Your task to perform on an android device: Search for acer predator on walmart, select the first entry, add it to the cart, then select checkout. Image 0: 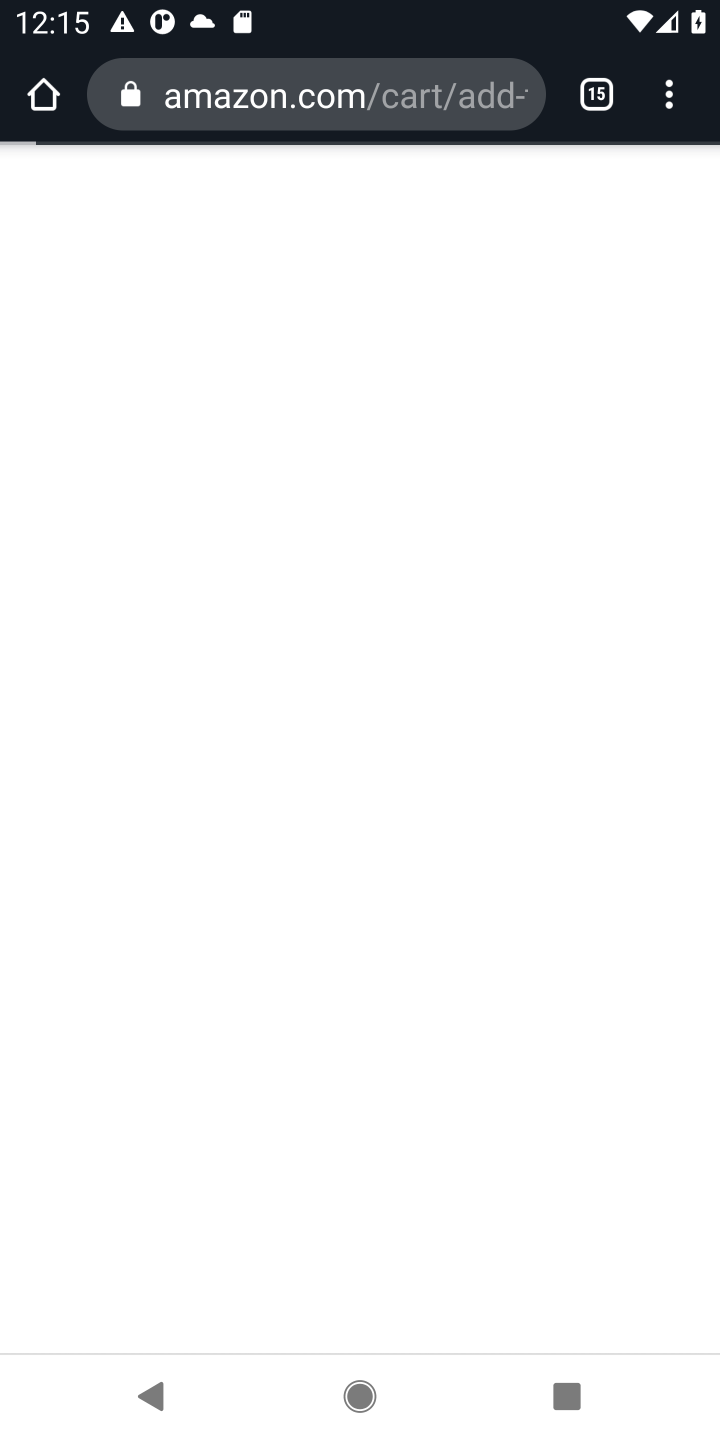
Step 0: press home button
Your task to perform on an android device: Search for acer predator on walmart, select the first entry, add it to the cart, then select checkout. Image 1: 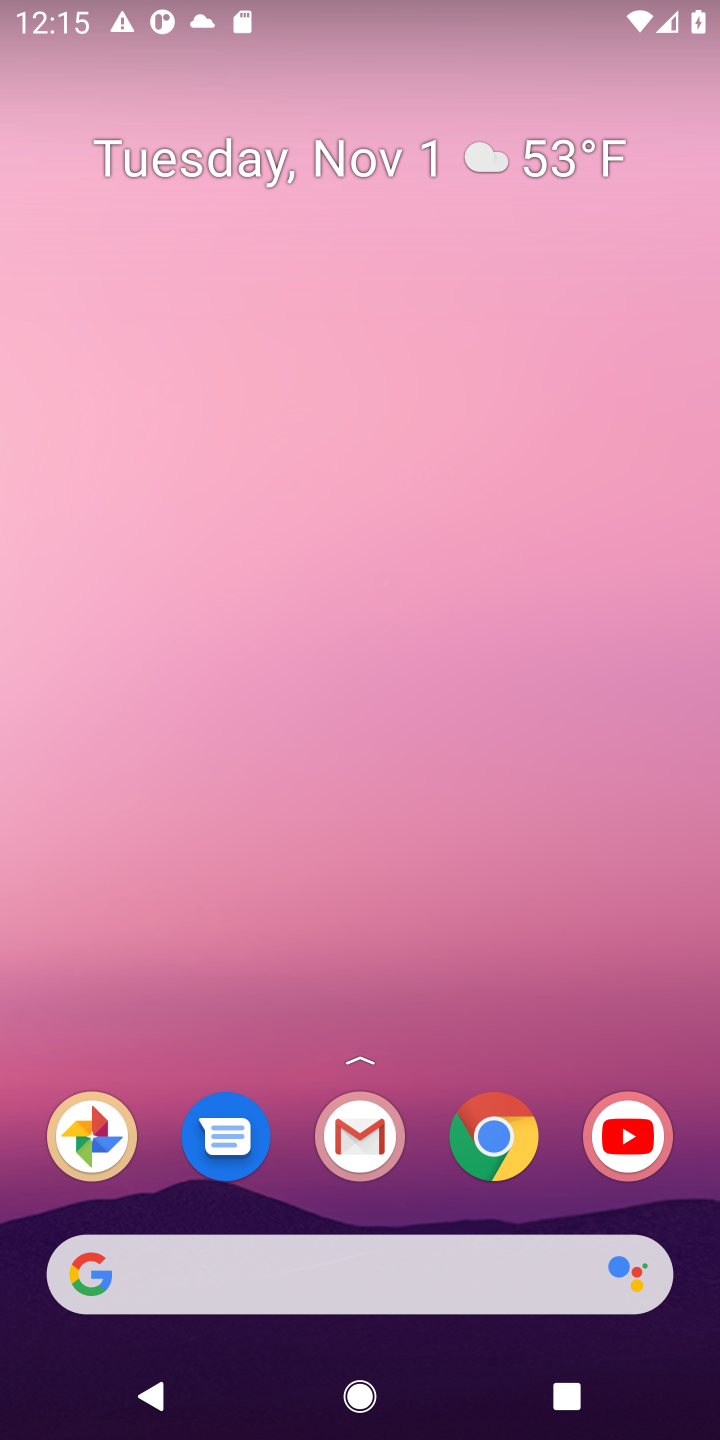
Step 1: press home button
Your task to perform on an android device: Search for acer predator on walmart, select the first entry, add it to the cart, then select checkout. Image 2: 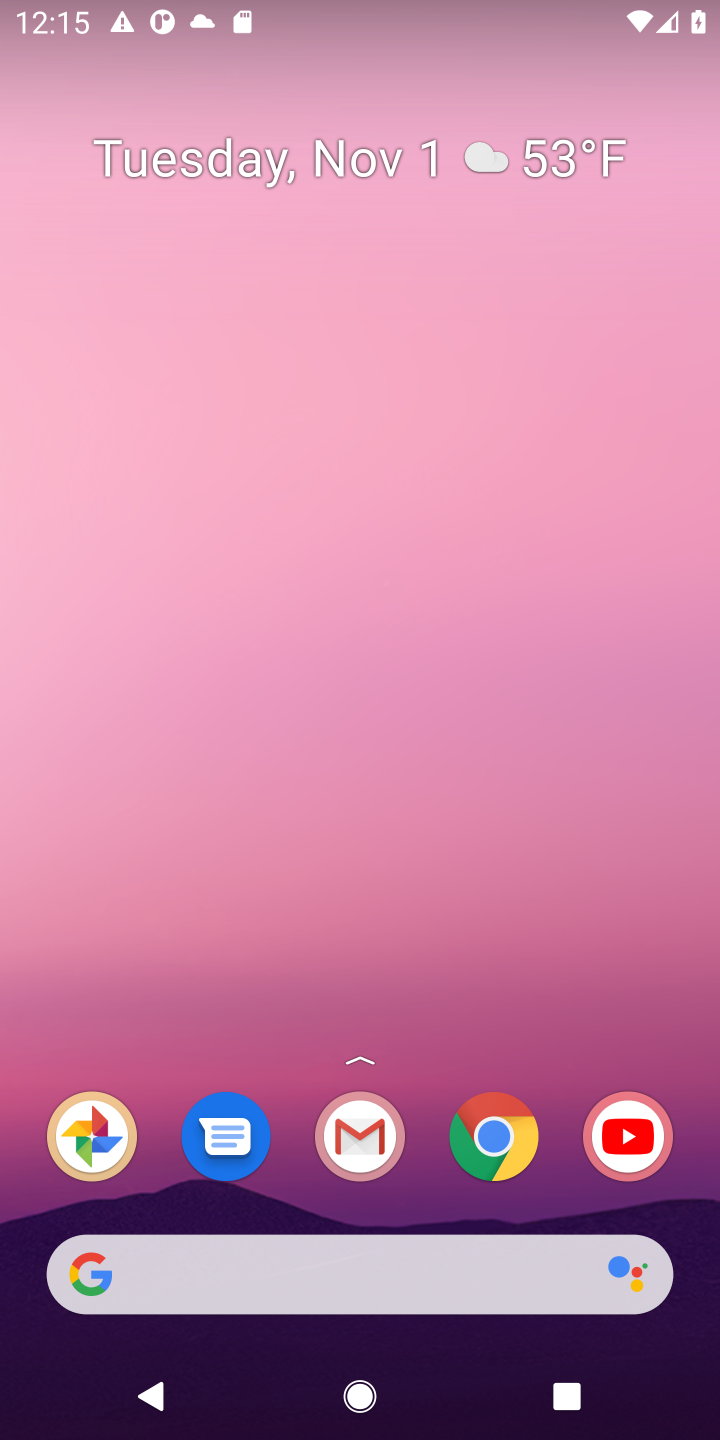
Step 2: click (140, 1274)
Your task to perform on an android device: Search for acer predator on walmart, select the first entry, add it to the cart, then select checkout. Image 3: 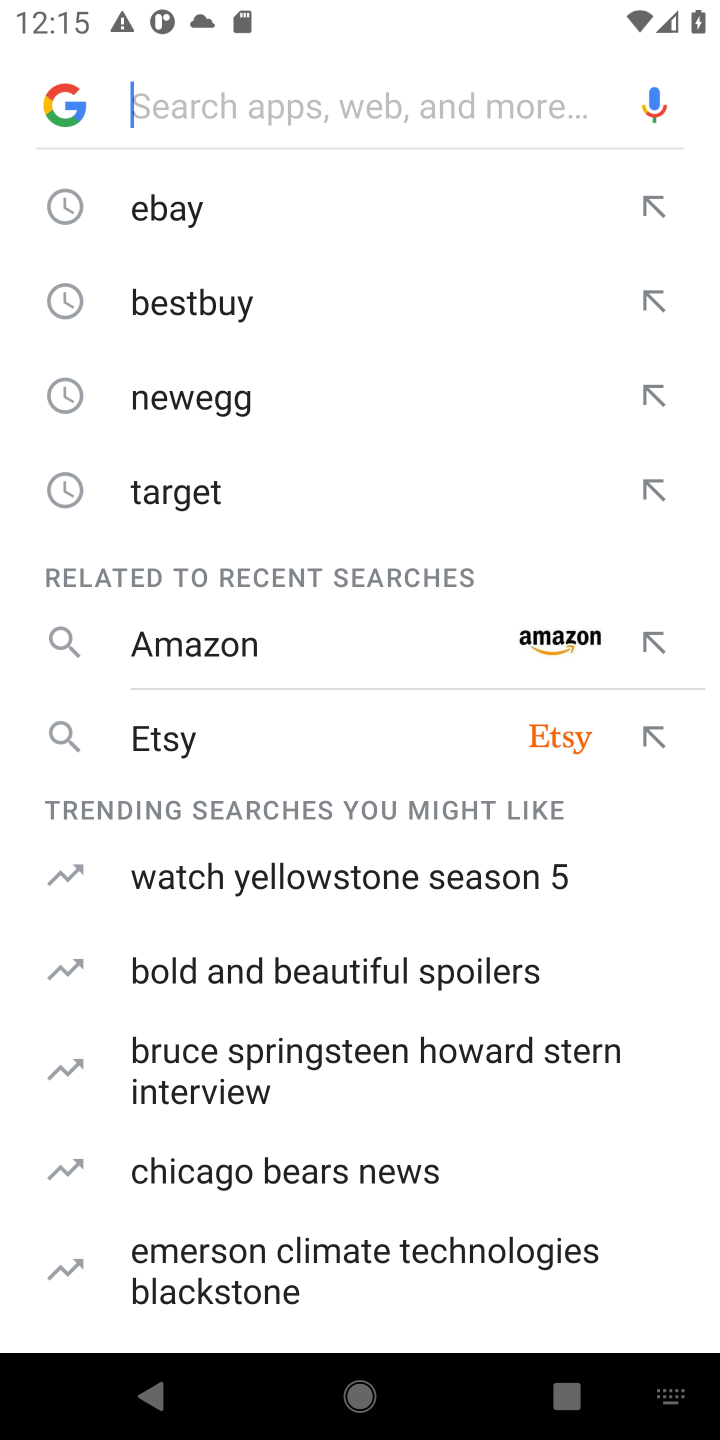
Step 3: type "walmart"
Your task to perform on an android device: Search for acer predator on walmart, select the first entry, add it to the cart, then select checkout. Image 4: 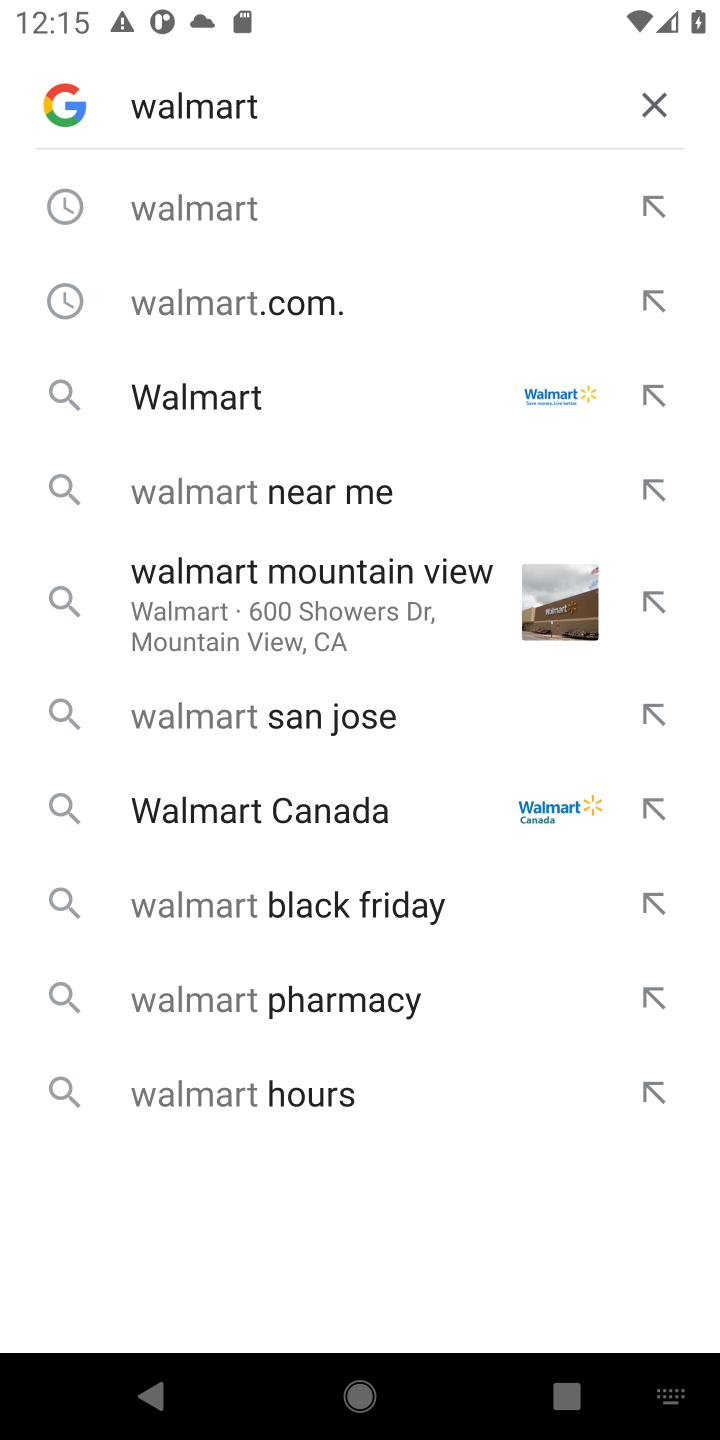
Step 4: press enter
Your task to perform on an android device: Search for acer predator on walmart, select the first entry, add it to the cart, then select checkout. Image 5: 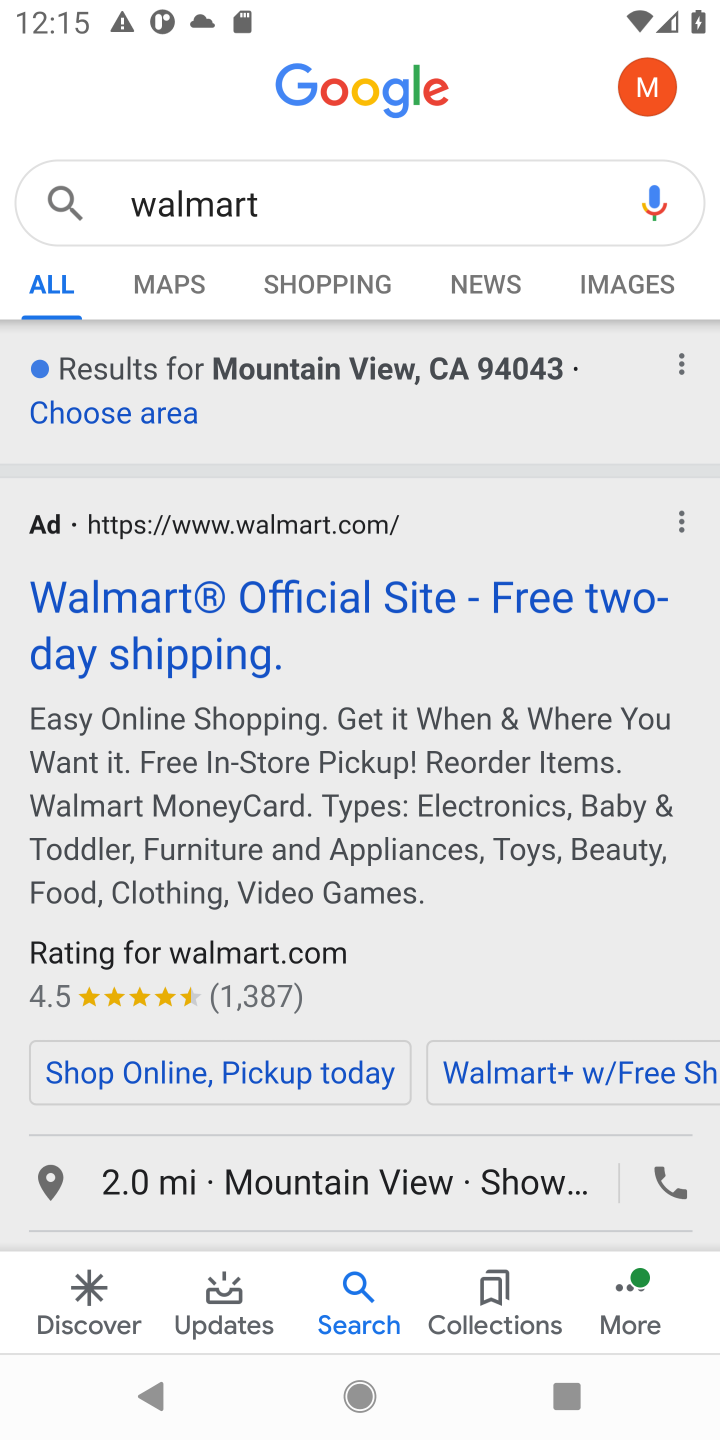
Step 5: click (166, 616)
Your task to perform on an android device: Search for acer predator on walmart, select the first entry, add it to the cart, then select checkout. Image 6: 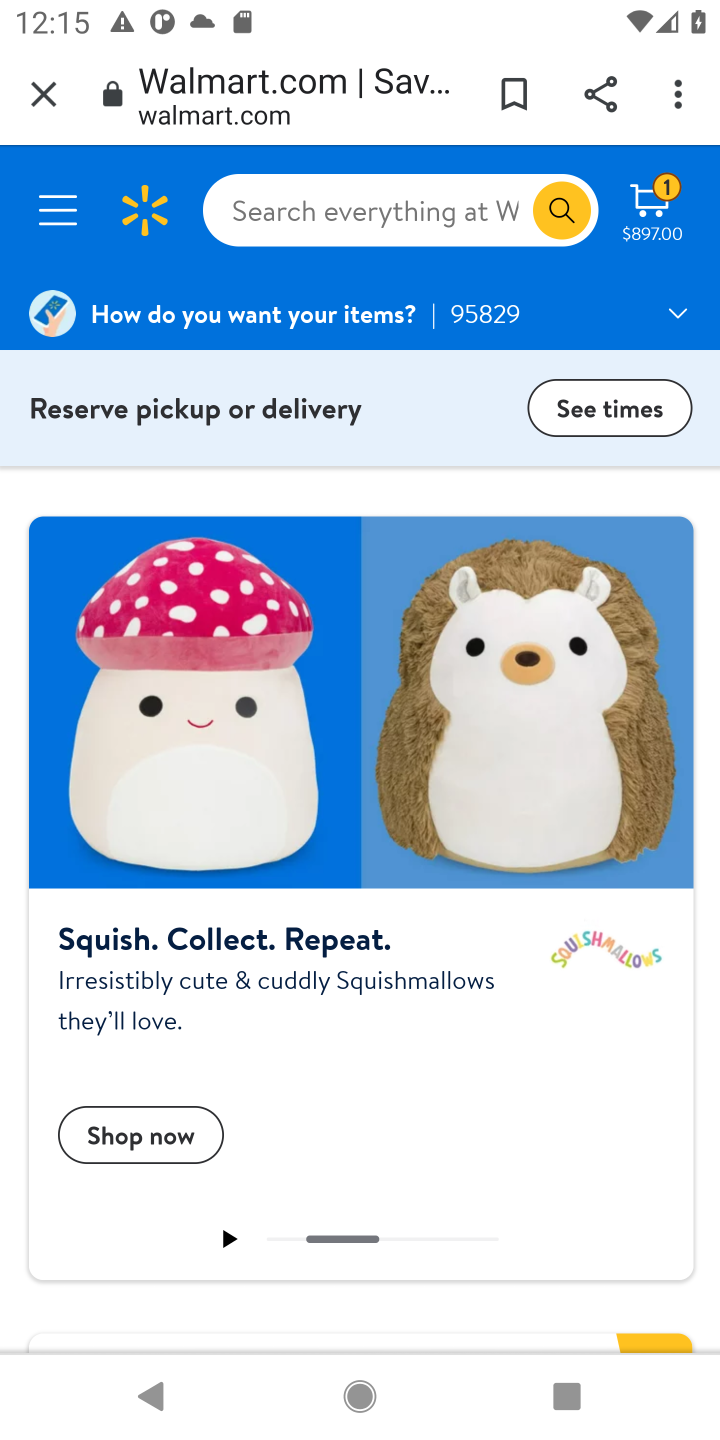
Step 6: click (258, 202)
Your task to perform on an android device: Search for acer predator on walmart, select the first entry, add it to the cart, then select checkout. Image 7: 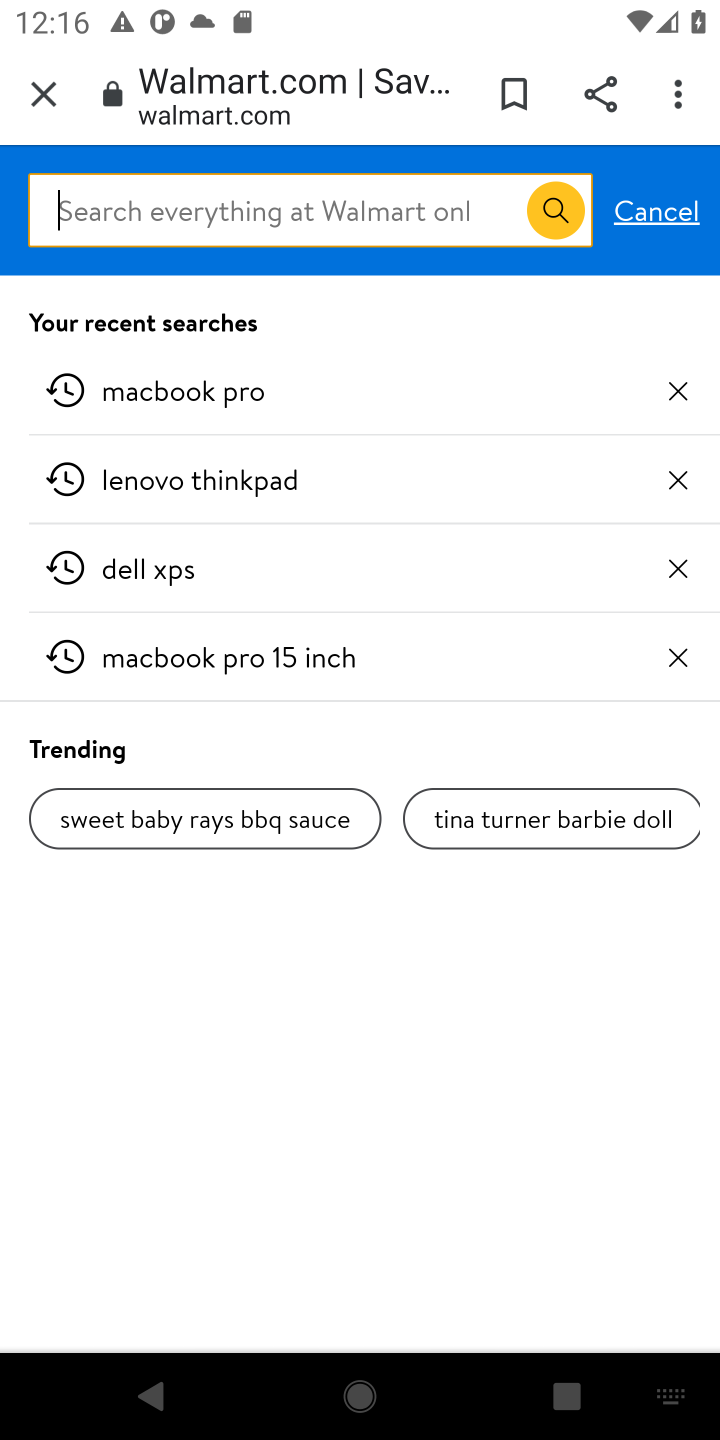
Step 7: type " acer predator"
Your task to perform on an android device: Search for acer predator on walmart, select the first entry, add it to the cart, then select checkout. Image 8: 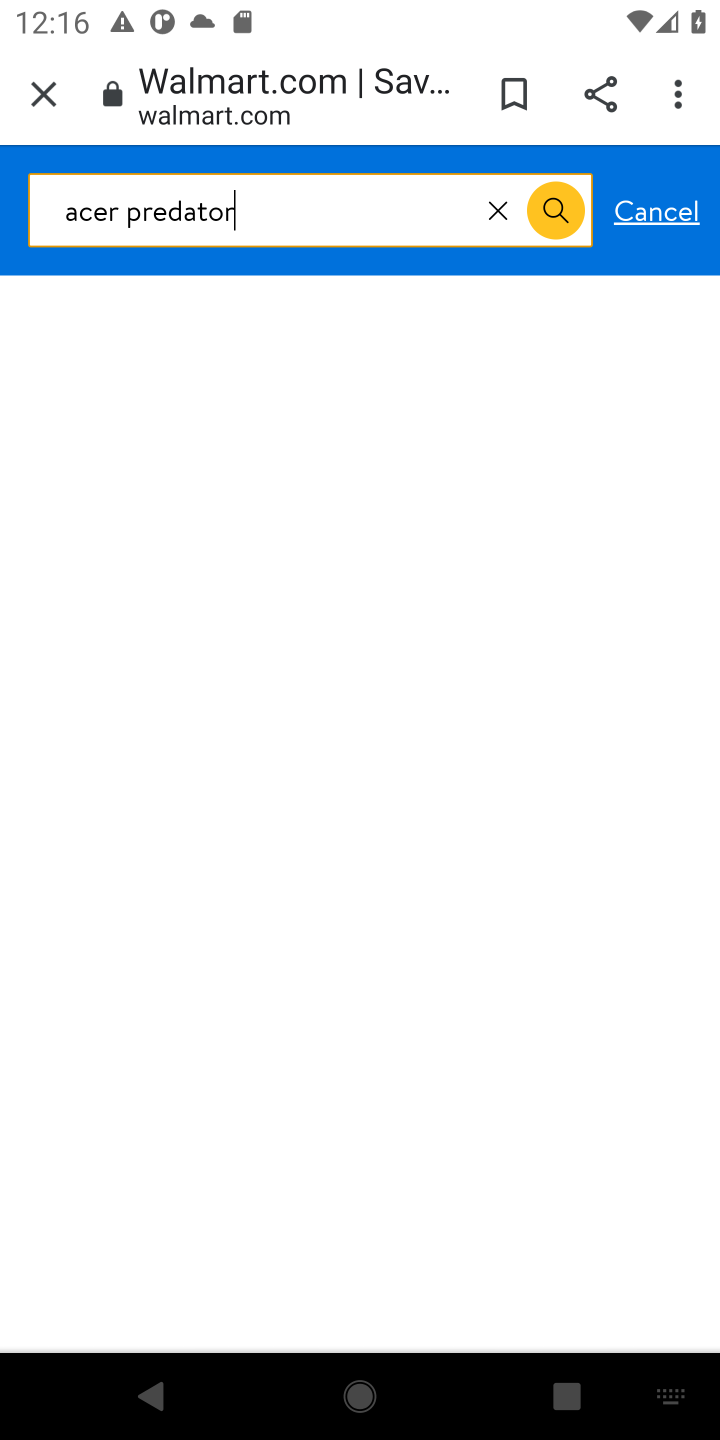
Step 8: press enter
Your task to perform on an android device: Search for acer predator on walmart, select the first entry, add it to the cart, then select checkout. Image 9: 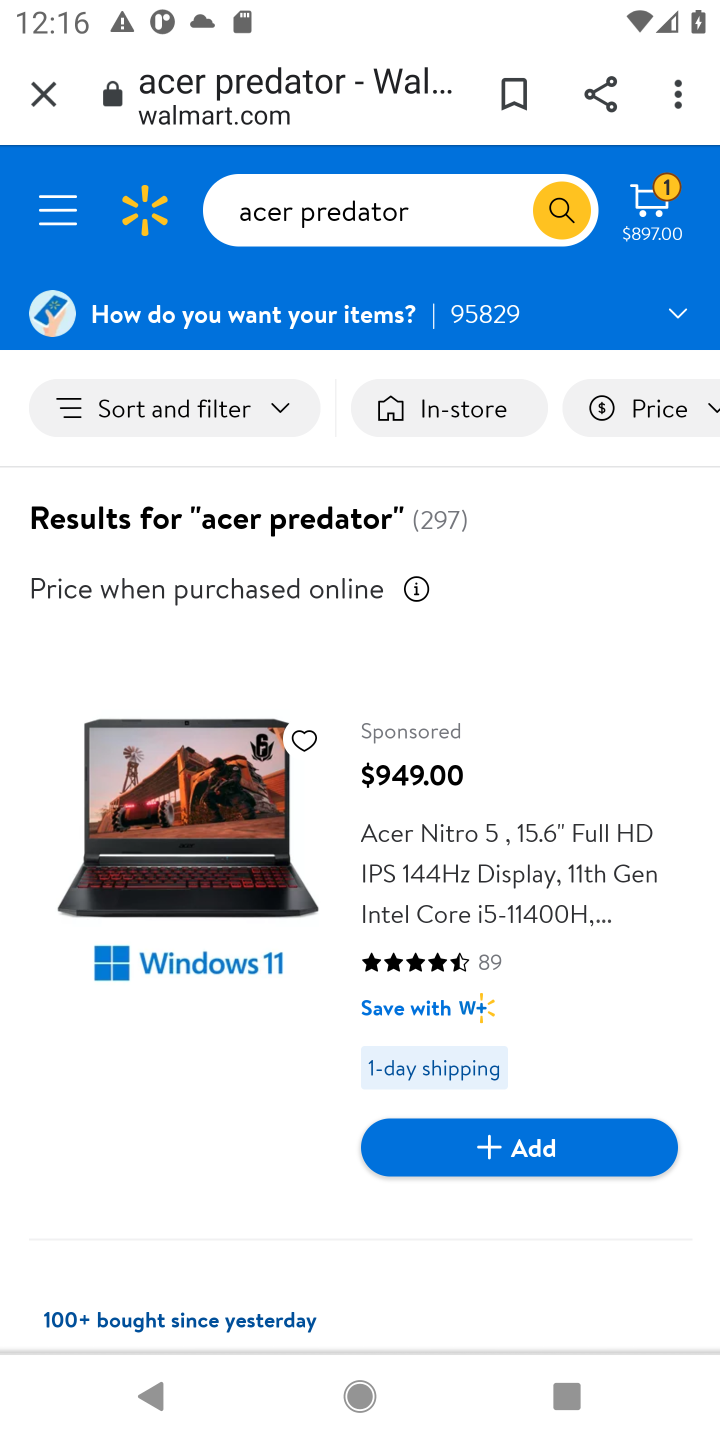
Step 9: drag from (350, 1200) to (366, 533)
Your task to perform on an android device: Search for acer predator on walmart, select the first entry, add it to the cart, then select checkout. Image 10: 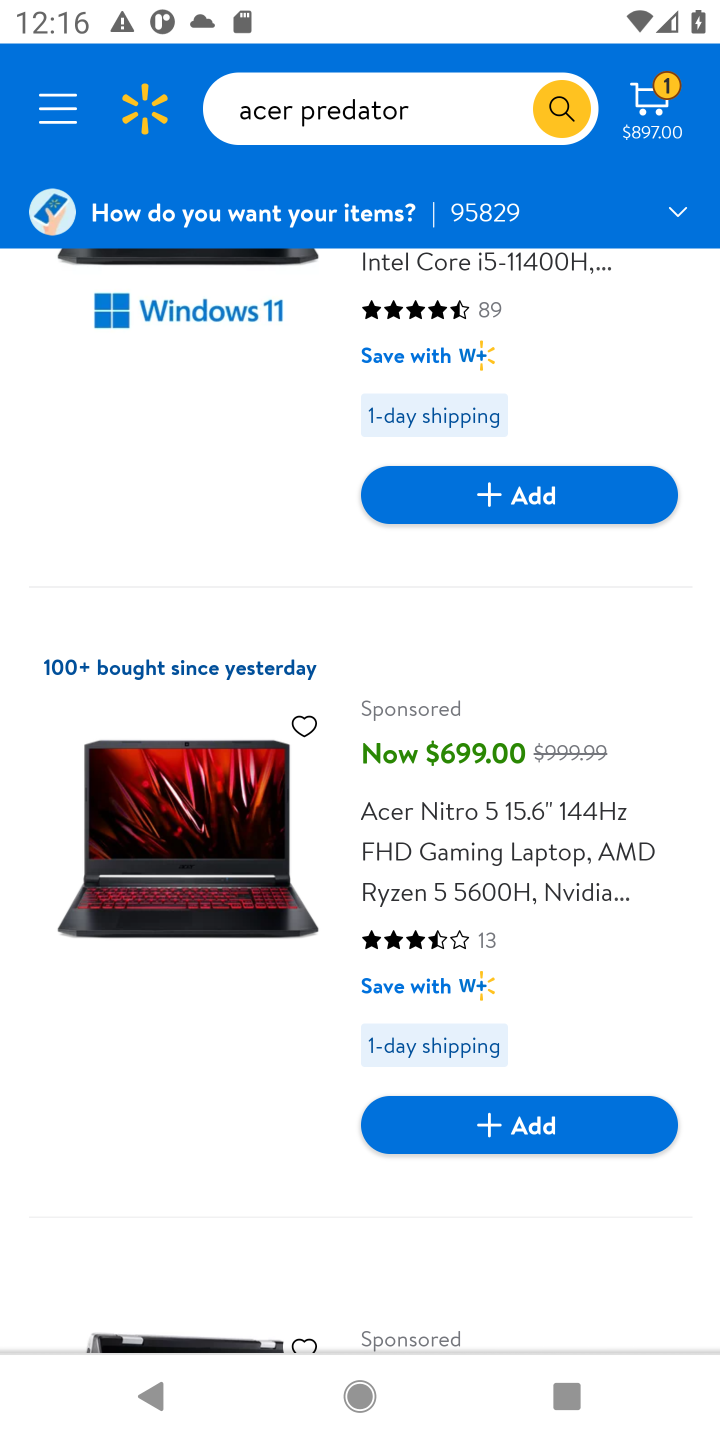
Step 10: drag from (318, 1145) to (323, 549)
Your task to perform on an android device: Search for acer predator on walmart, select the first entry, add it to the cart, then select checkout. Image 11: 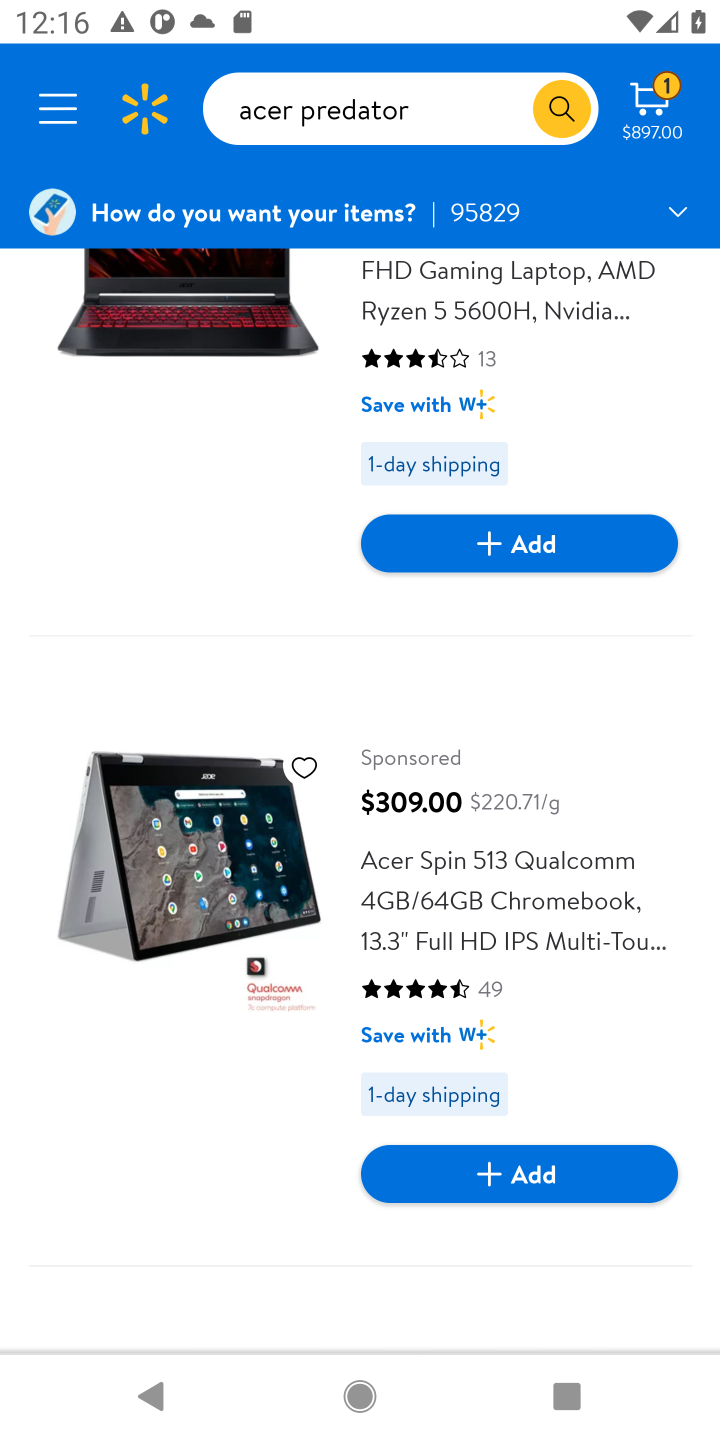
Step 11: drag from (281, 1153) to (312, 503)
Your task to perform on an android device: Search for acer predator on walmart, select the first entry, add it to the cart, then select checkout. Image 12: 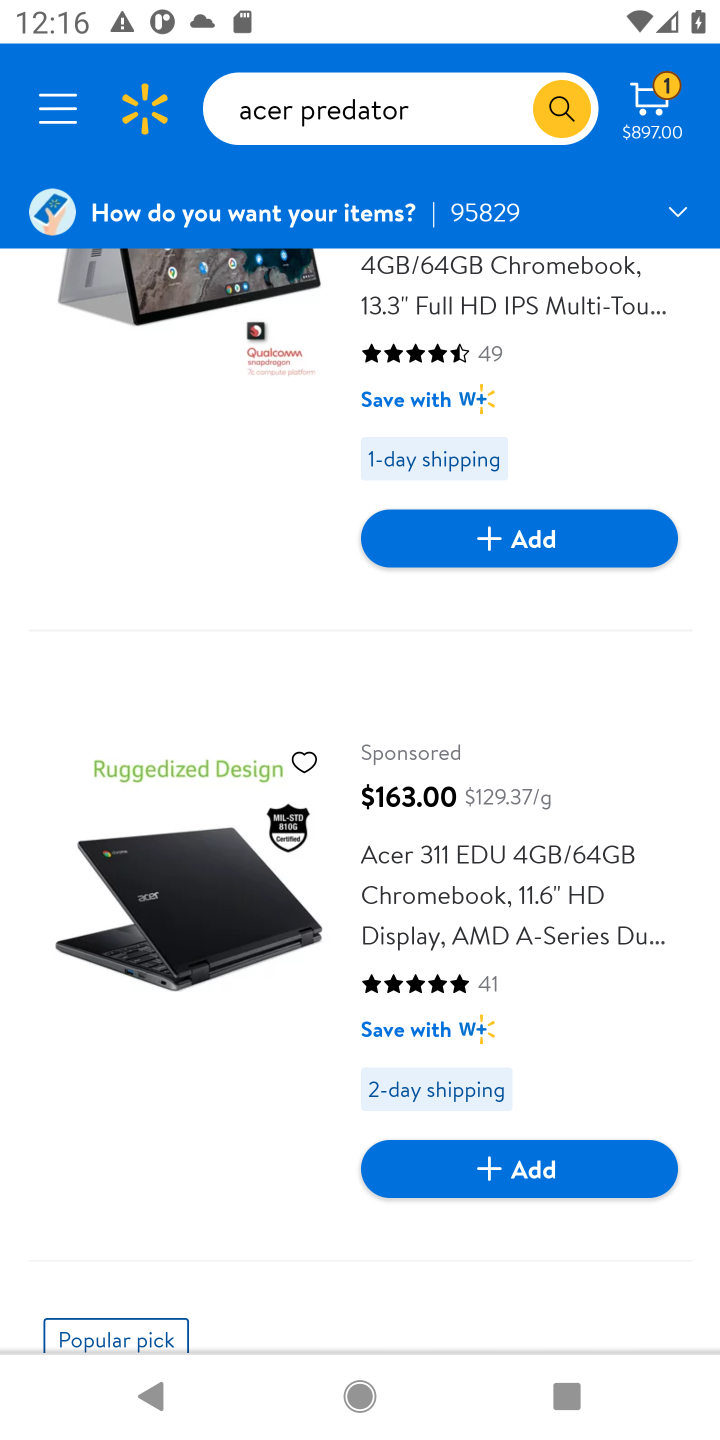
Step 12: drag from (240, 1163) to (296, 490)
Your task to perform on an android device: Search for acer predator on walmart, select the first entry, add it to the cart, then select checkout. Image 13: 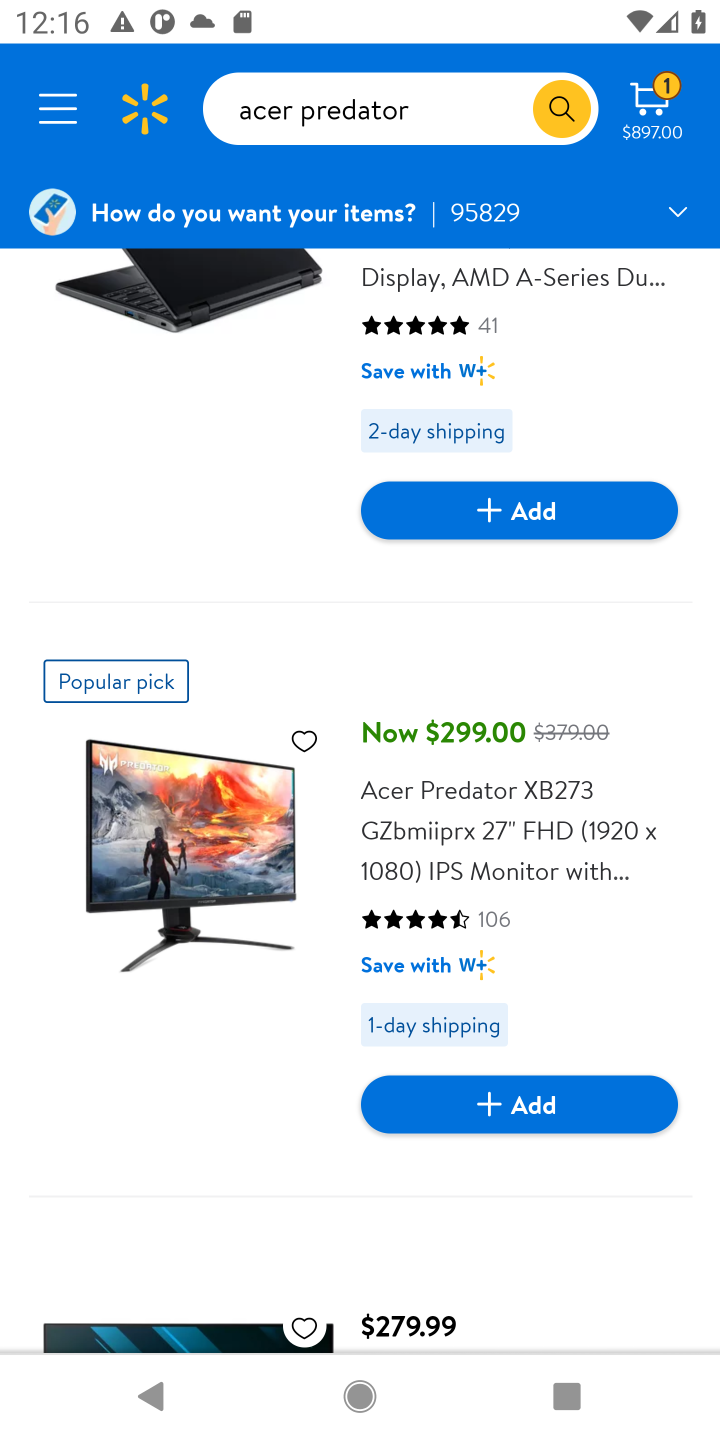
Step 13: click (512, 1108)
Your task to perform on an android device: Search for acer predator on walmart, select the first entry, add it to the cart, then select checkout. Image 14: 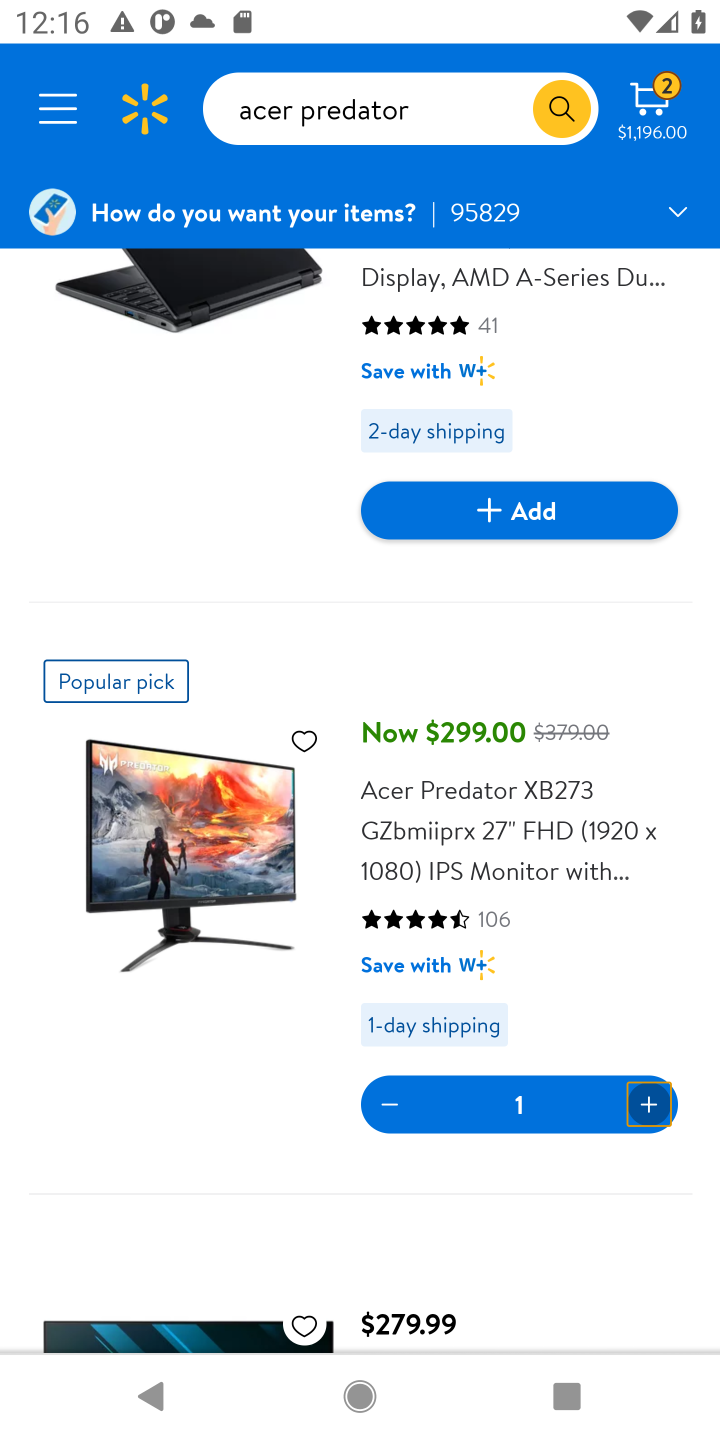
Step 14: click (652, 103)
Your task to perform on an android device: Search for acer predator on walmart, select the first entry, add it to the cart, then select checkout. Image 15: 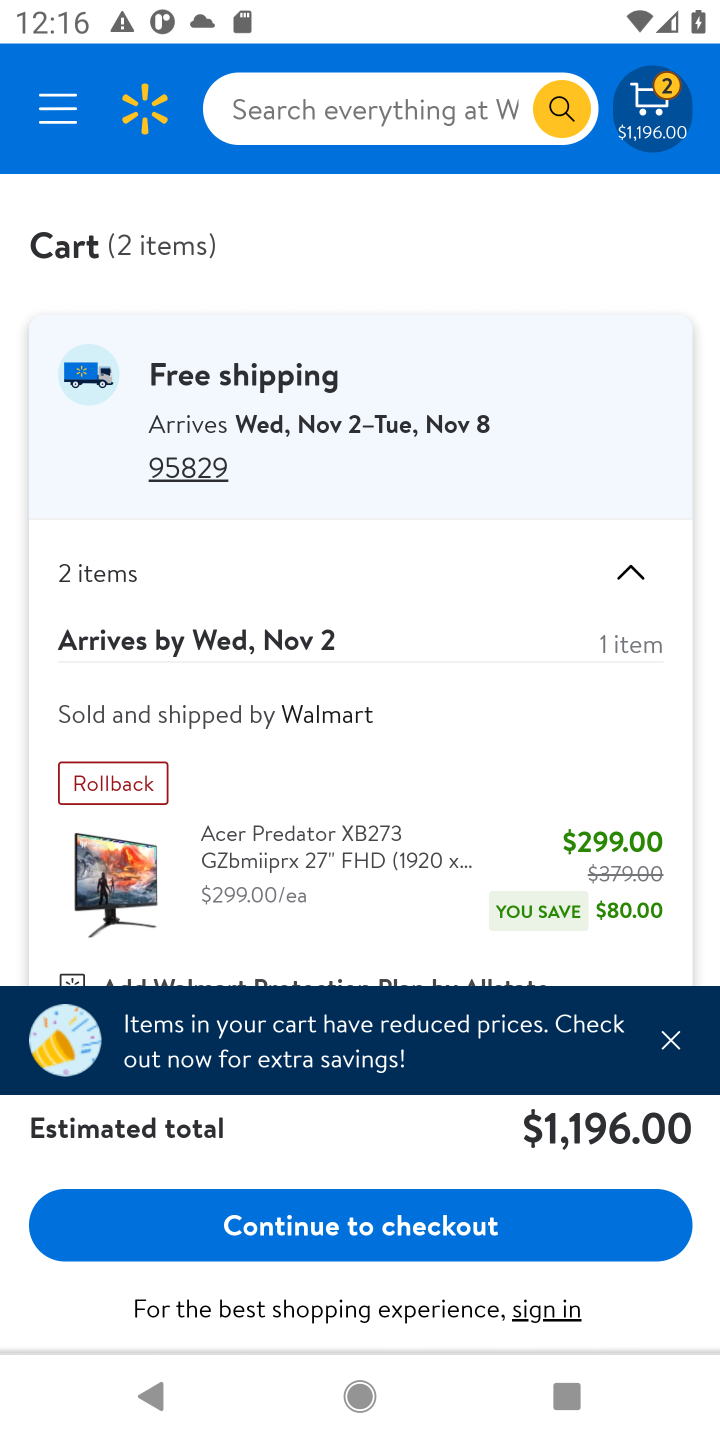
Step 15: click (326, 1237)
Your task to perform on an android device: Search for acer predator on walmart, select the first entry, add it to the cart, then select checkout. Image 16: 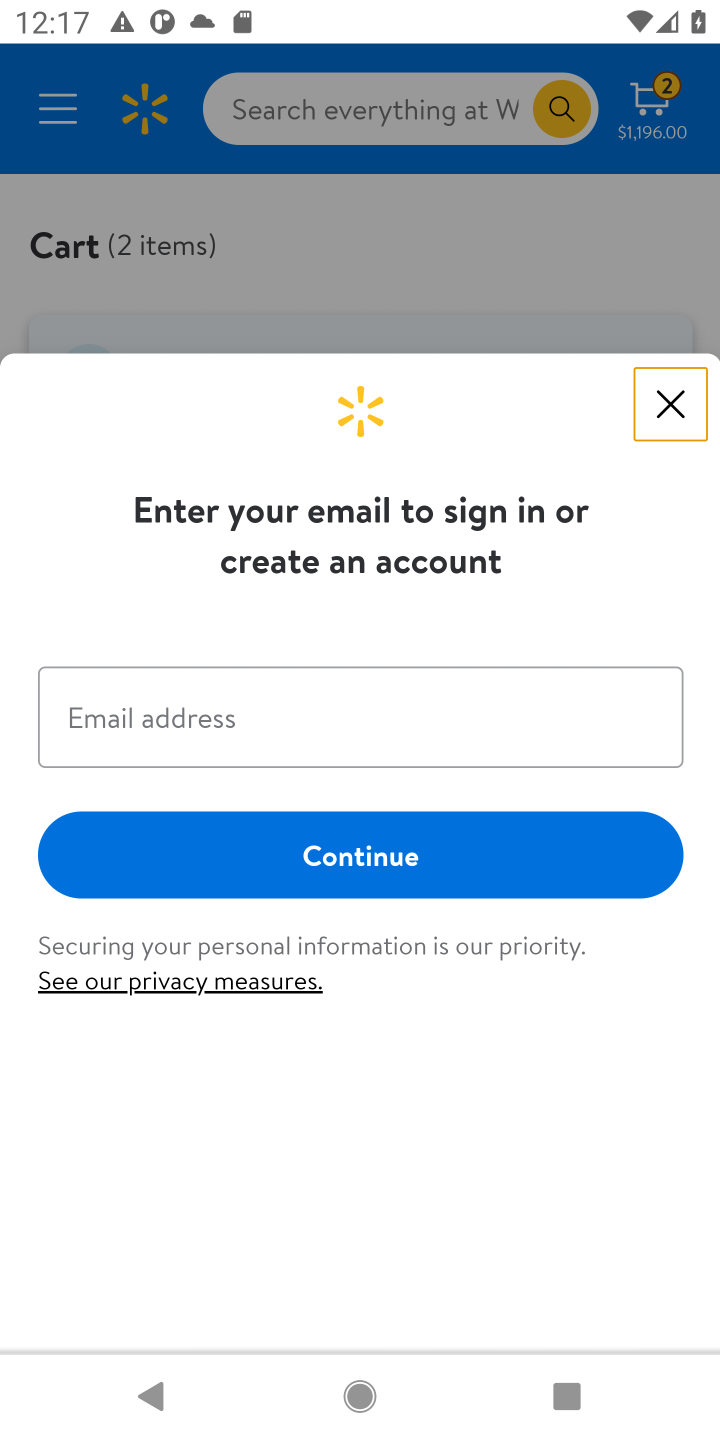
Step 16: task complete